Your task to perform on an android device: refresh tabs in the chrome app Image 0: 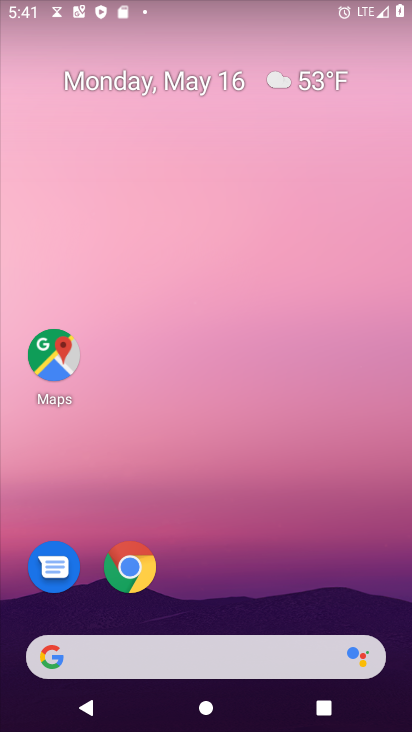
Step 0: drag from (332, 648) to (318, 75)
Your task to perform on an android device: refresh tabs in the chrome app Image 1: 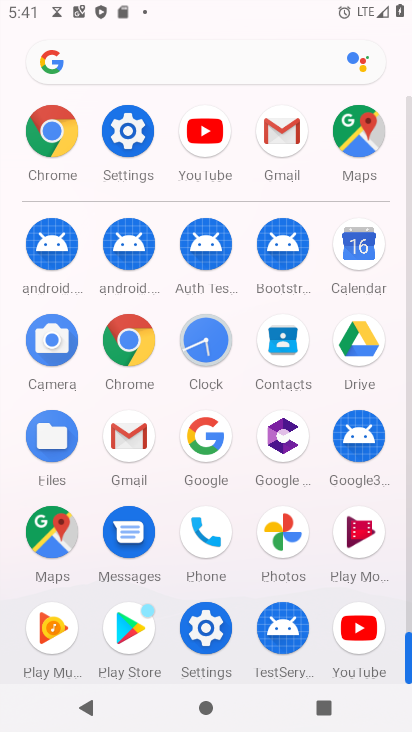
Step 1: click (116, 355)
Your task to perform on an android device: refresh tabs in the chrome app Image 2: 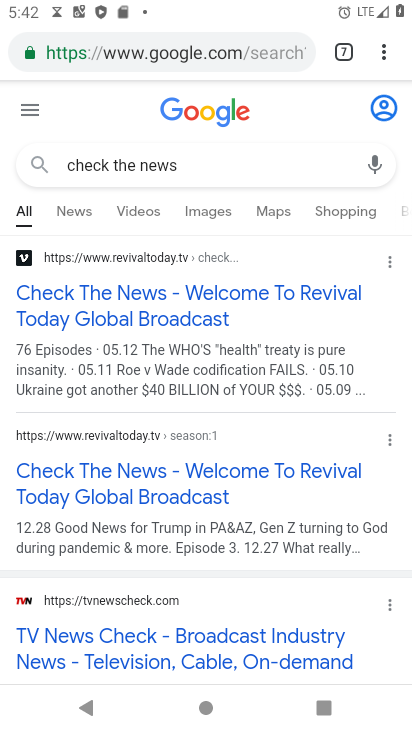
Step 2: click (387, 54)
Your task to perform on an android device: refresh tabs in the chrome app Image 3: 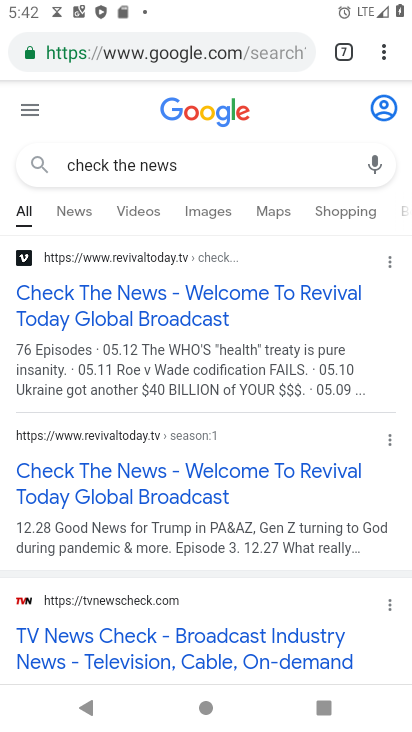
Step 3: click (389, 53)
Your task to perform on an android device: refresh tabs in the chrome app Image 4: 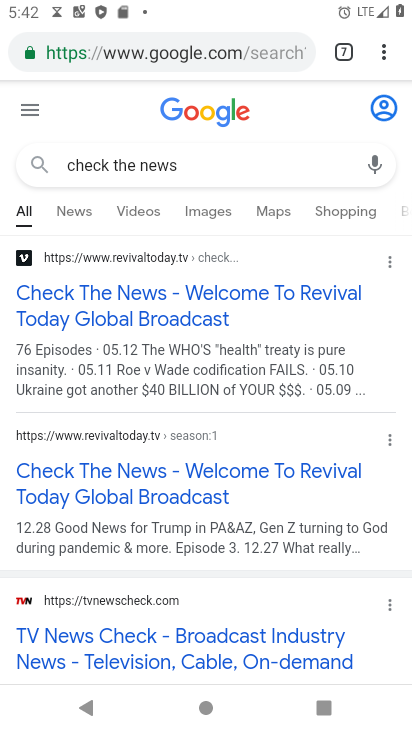
Step 4: click (384, 45)
Your task to perform on an android device: refresh tabs in the chrome app Image 5: 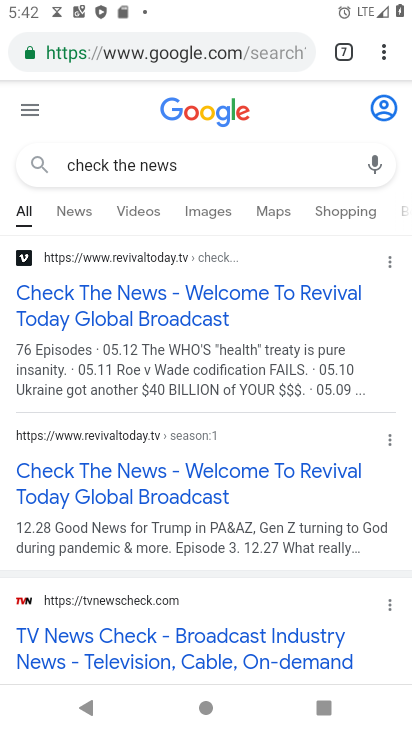
Step 5: task complete